Your task to perform on an android device: Go to Maps Image 0: 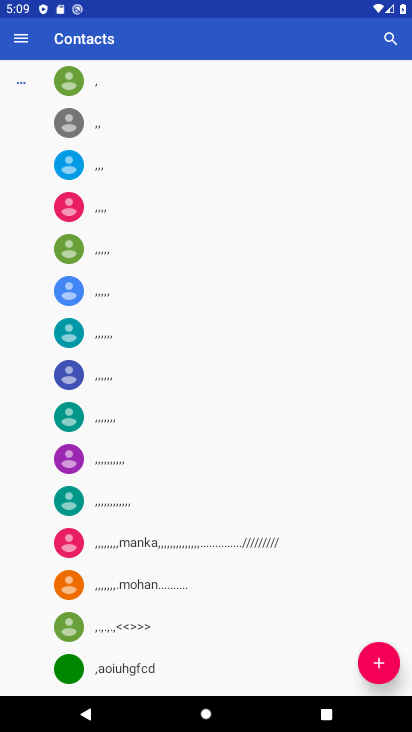
Step 0: press back button
Your task to perform on an android device: Go to Maps Image 1: 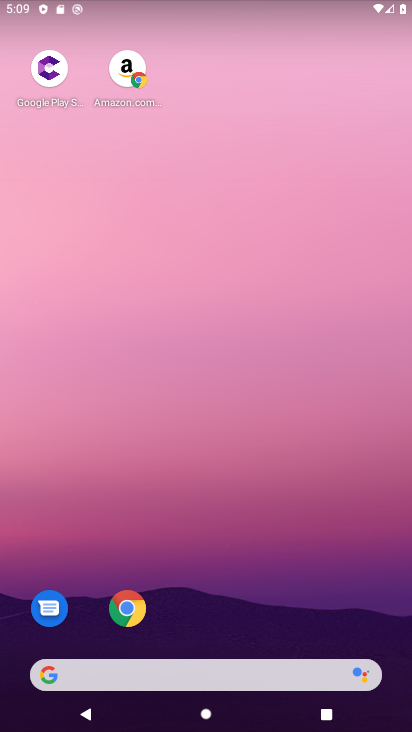
Step 1: drag from (261, 554) to (254, 65)
Your task to perform on an android device: Go to Maps Image 2: 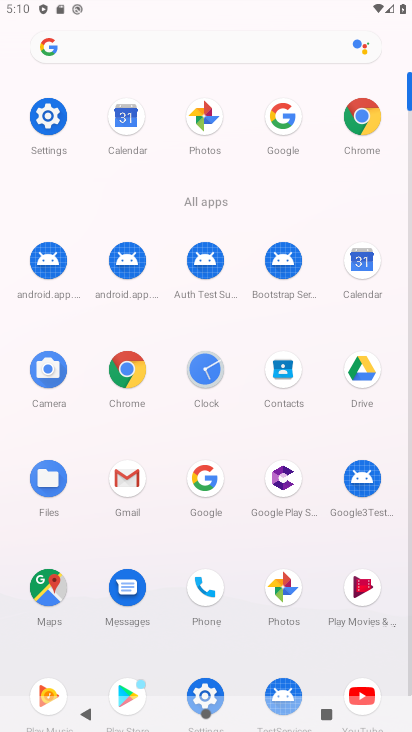
Step 2: click (47, 589)
Your task to perform on an android device: Go to Maps Image 3: 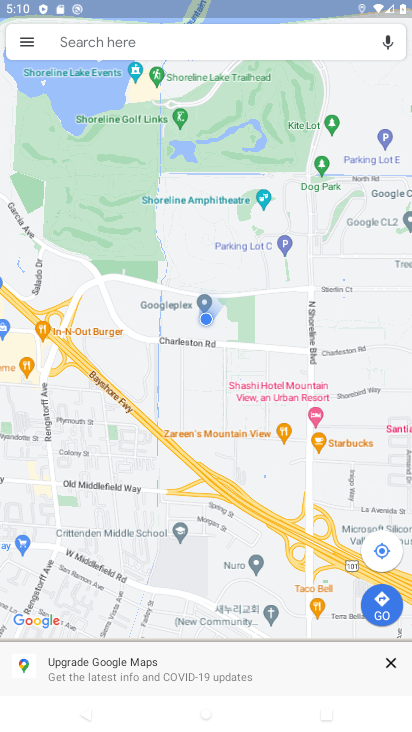
Step 3: task complete